Your task to perform on an android device: Open notification settings Image 0: 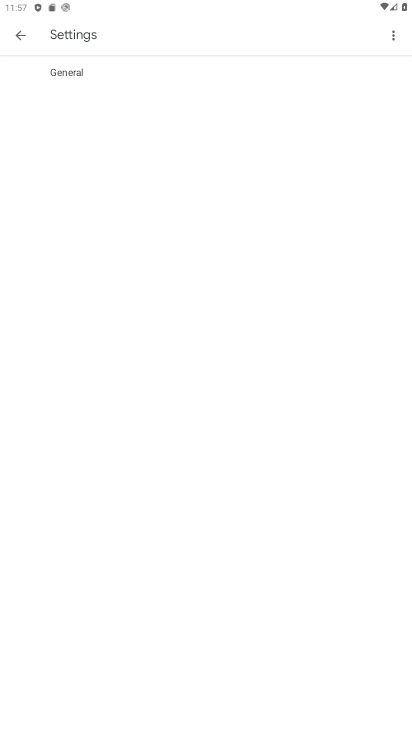
Step 0: press home button
Your task to perform on an android device: Open notification settings Image 1: 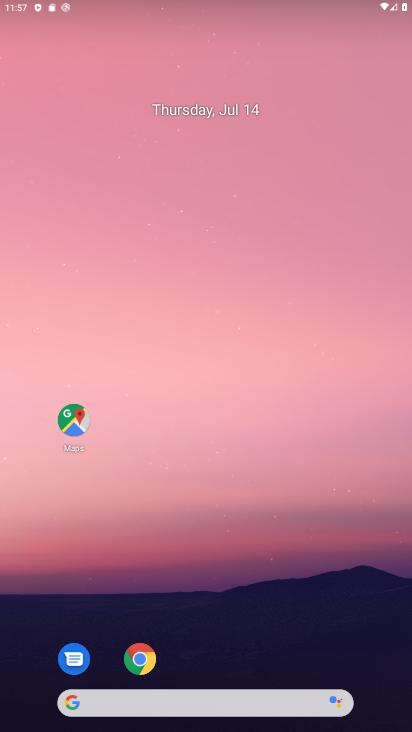
Step 1: drag from (188, 667) to (295, 85)
Your task to perform on an android device: Open notification settings Image 2: 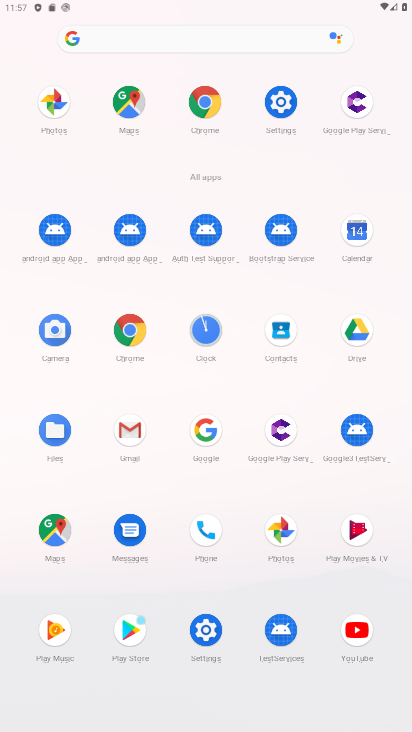
Step 2: click (281, 93)
Your task to perform on an android device: Open notification settings Image 3: 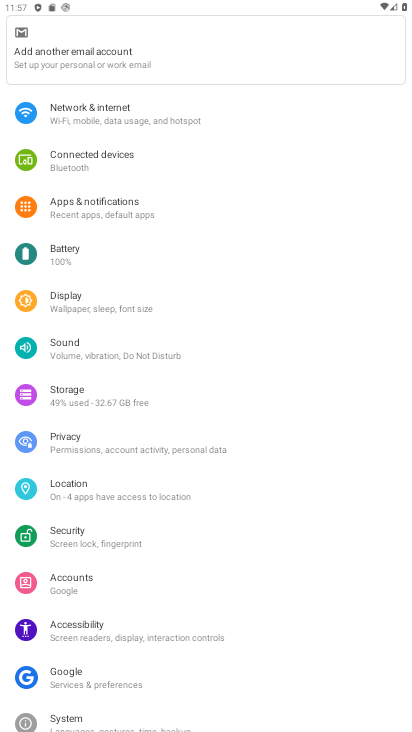
Step 3: click (134, 218)
Your task to perform on an android device: Open notification settings Image 4: 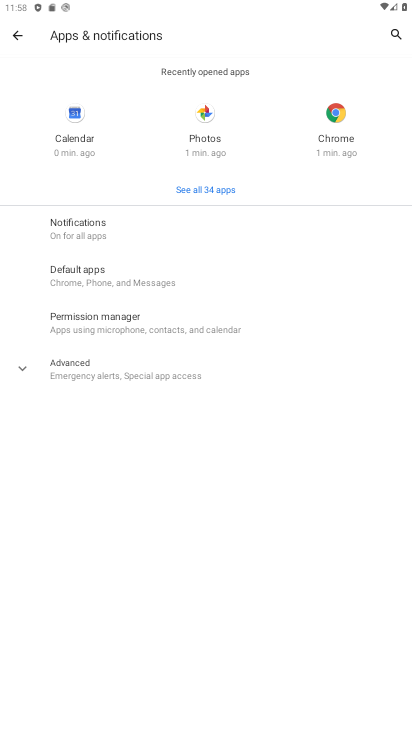
Step 4: click (118, 237)
Your task to perform on an android device: Open notification settings Image 5: 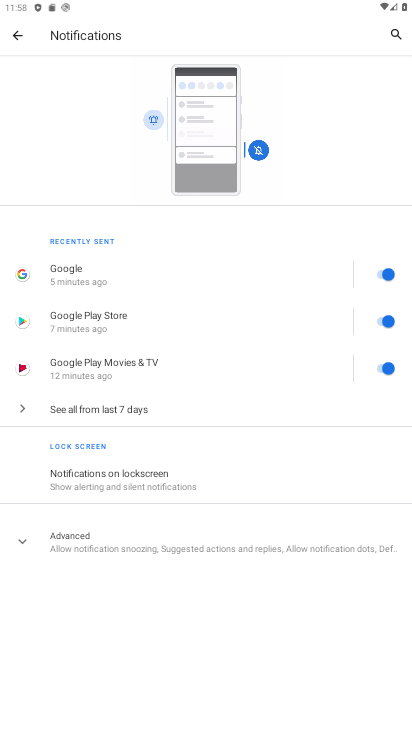
Step 5: task complete